Your task to perform on an android device: Go to settings Image 0: 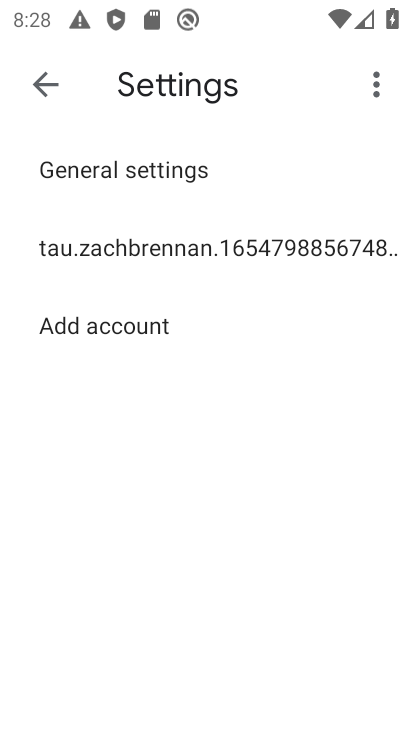
Step 0: press home button
Your task to perform on an android device: Go to settings Image 1: 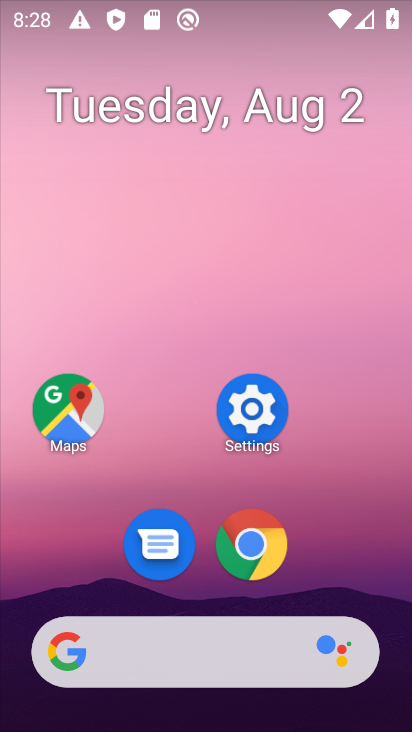
Step 1: click (253, 393)
Your task to perform on an android device: Go to settings Image 2: 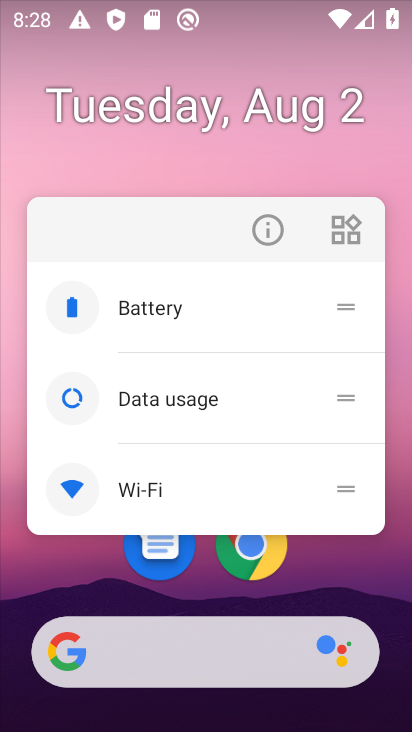
Step 2: click (358, 555)
Your task to perform on an android device: Go to settings Image 3: 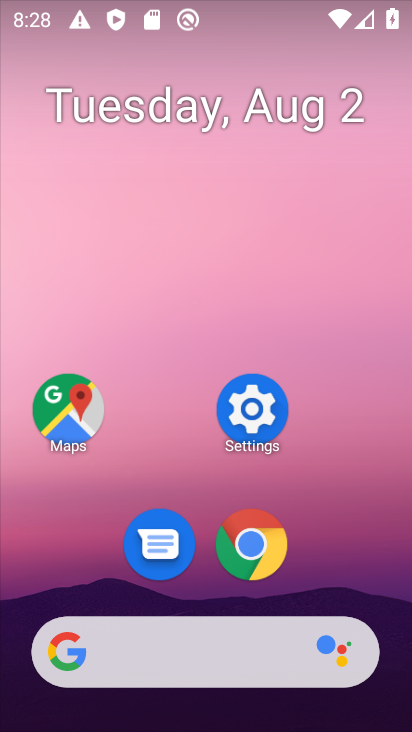
Step 3: click (251, 417)
Your task to perform on an android device: Go to settings Image 4: 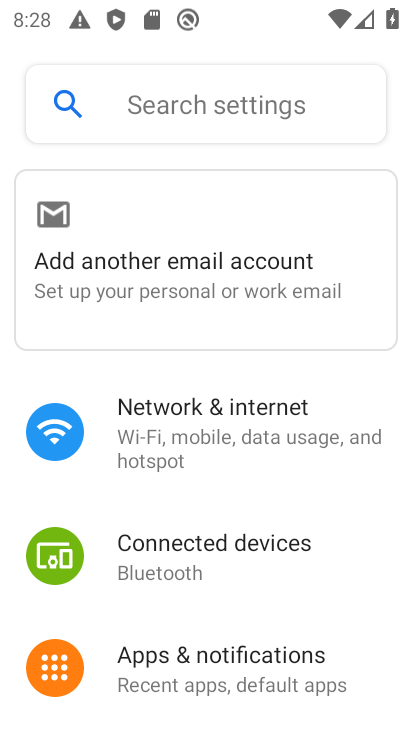
Step 4: task complete